Your task to perform on an android device: Search for sushi restaurants on Maps Image 0: 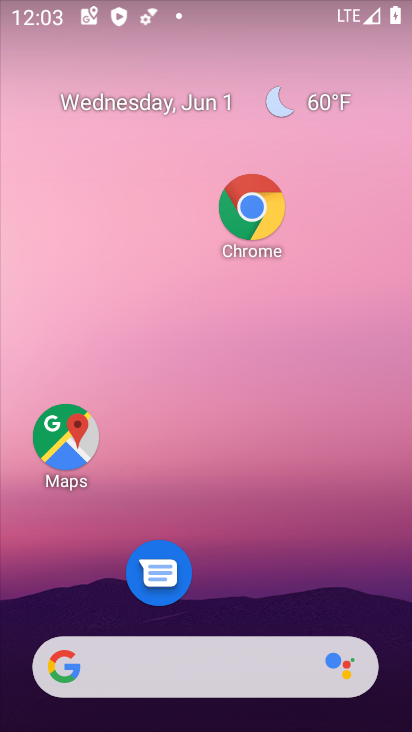
Step 0: click (51, 427)
Your task to perform on an android device: Search for sushi restaurants on Maps Image 1: 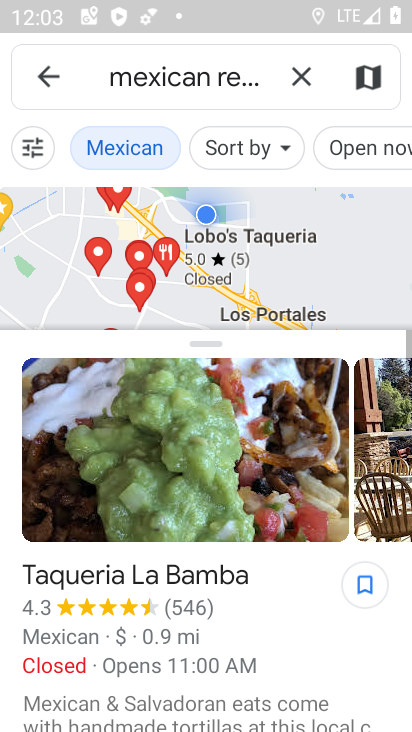
Step 1: click (302, 74)
Your task to perform on an android device: Search for sushi restaurants on Maps Image 2: 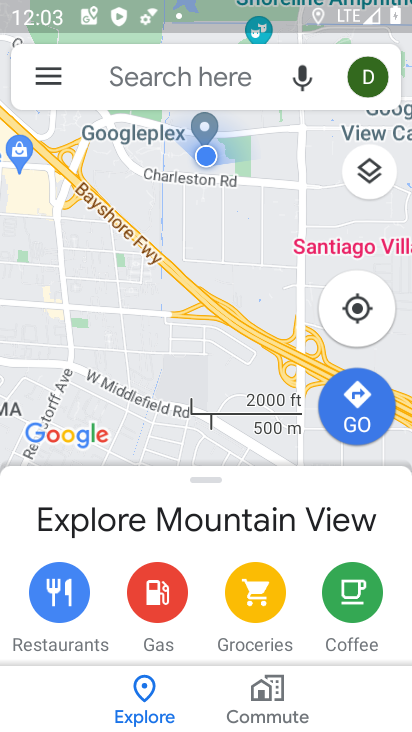
Step 2: click (218, 73)
Your task to perform on an android device: Search for sushi restaurants on Maps Image 3: 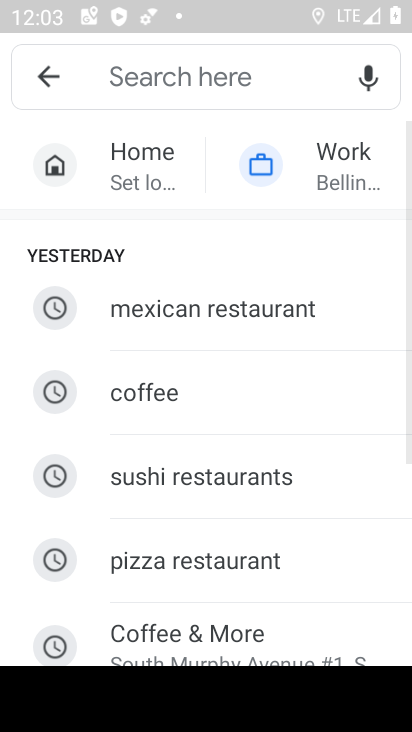
Step 3: click (171, 485)
Your task to perform on an android device: Search for sushi restaurants on Maps Image 4: 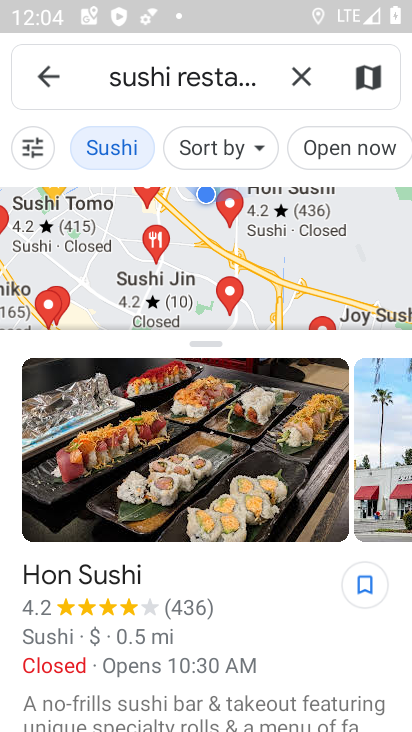
Step 4: task complete